Your task to perform on an android device: read, delete, or share a saved page in the chrome app Image 0: 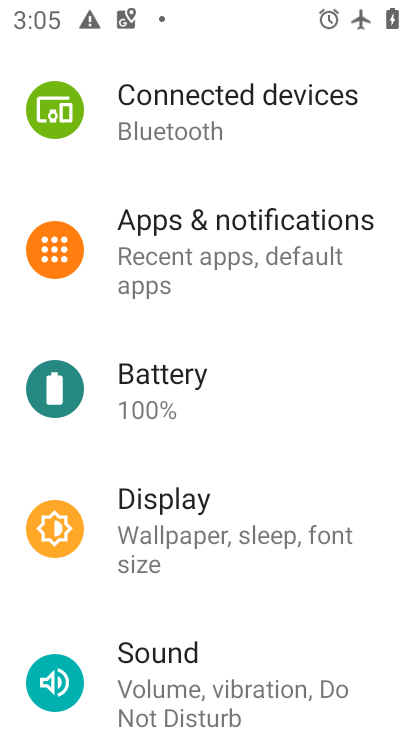
Step 0: press home button
Your task to perform on an android device: read, delete, or share a saved page in the chrome app Image 1: 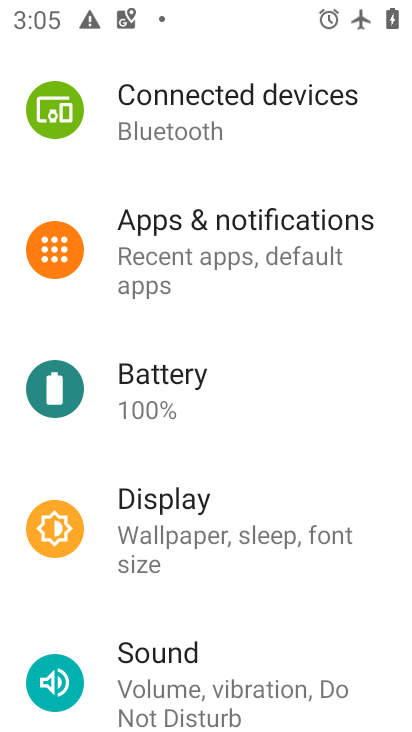
Step 1: press home button
Your task to perform on an android device: read, delete, or share a saved page in the chrome app Image 2: 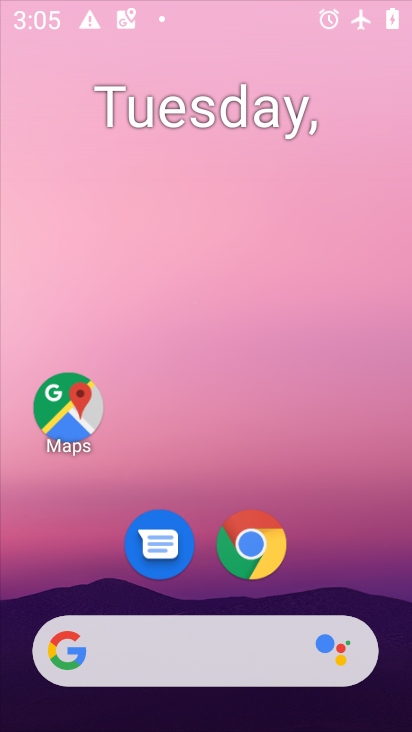
Step 2: press home button
Your task to perform on an android device: read, delete, or share a saved page in the chrome app Image 3: 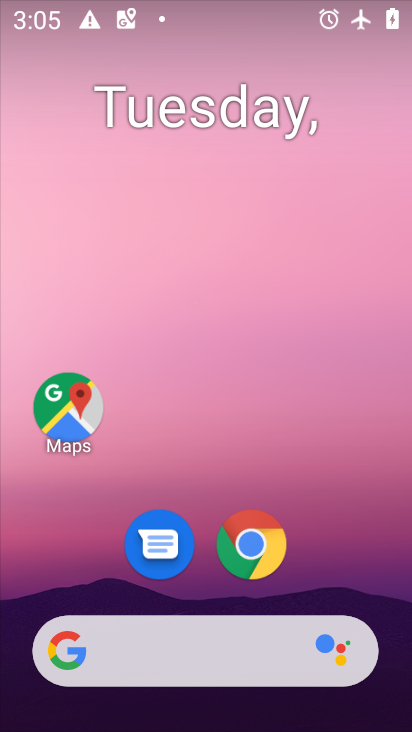
Step 3: drag from (345, 525) to (240, 9)
Your task to perform on an android device: read, delete, or share a saved page in the chrome app Image 4: 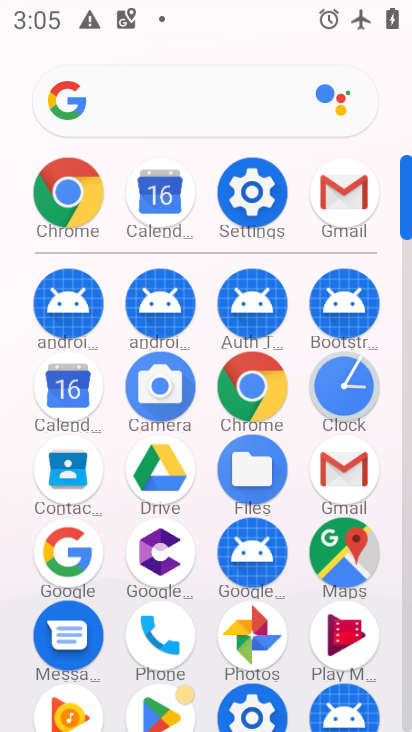
Step 4: click (251, 382)
Your task to perform on an android device: read, delete, or share a saved page in the chrome app Image 5: 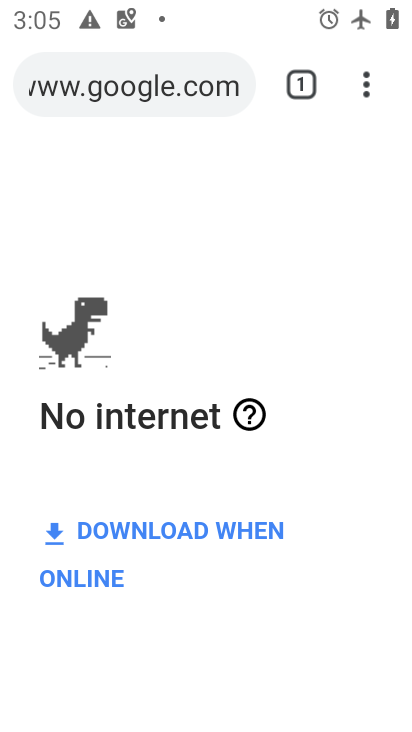
Step 5: task complete